Your task to perform on an android device: check android version Image 0: 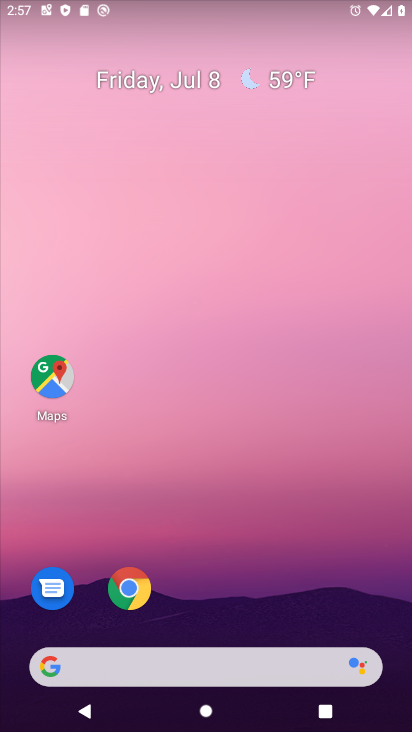
Step 0: drag from (218, 628) to (341, 100)
Your task to perform on an android device: check android version Image 1: 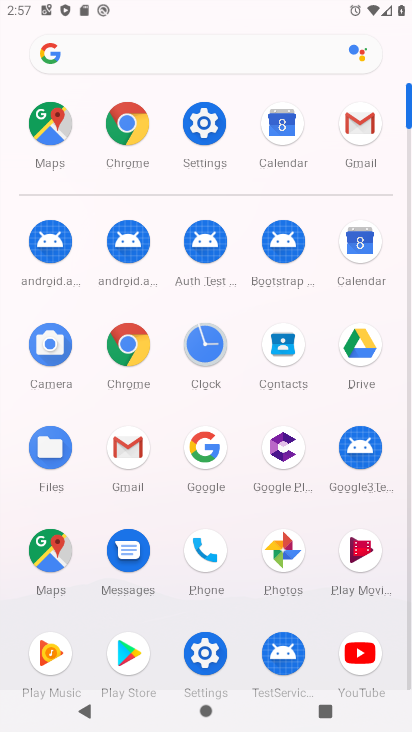
Step 1: click (208, 137)
Your task to perform on an android device: check android version Image 2: 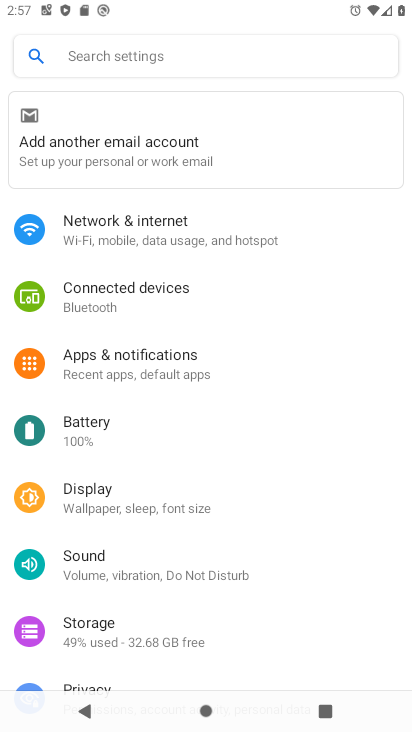
Step 2: drag from (121, 546) to (169, 131)
Your task to perform on an android device: check android version Image 3: 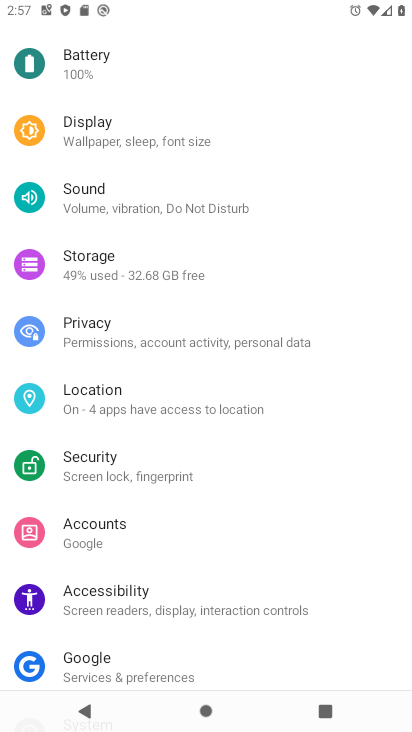
Step 3: drag from (204, 628) to (243, 264)
Your task to perform on an android device: check android version Image 4: 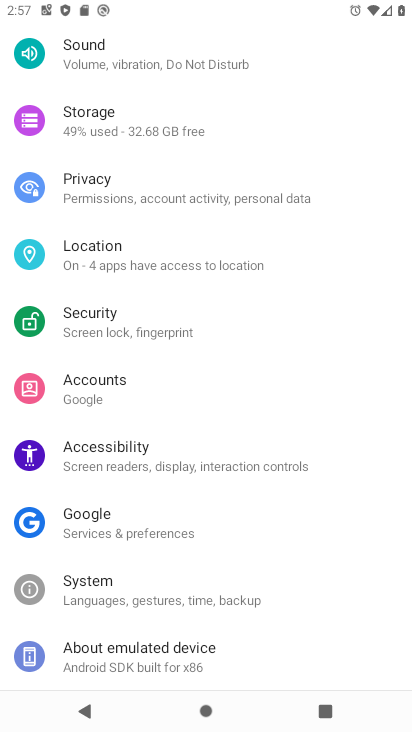
Step 4: click (141, 661)
Your task to perform on an android device: check android version Image 5: 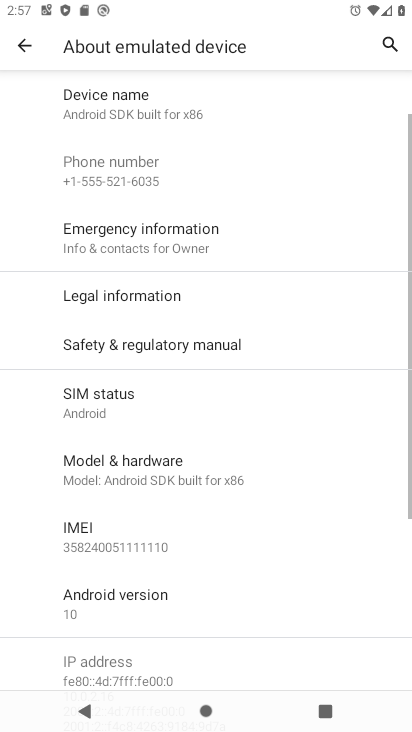
Step 5: click (136, 605)
Your task to perform on an android device: check android version Image 6: 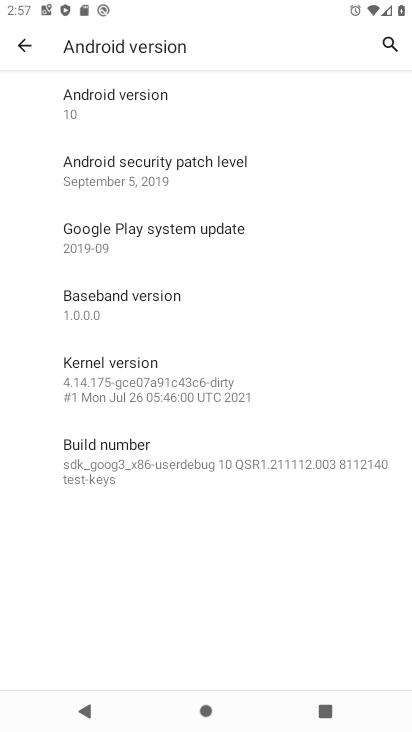
Step 6: task complete